Your task to perform on an android device: turn off translation in the chrome app Image 0: 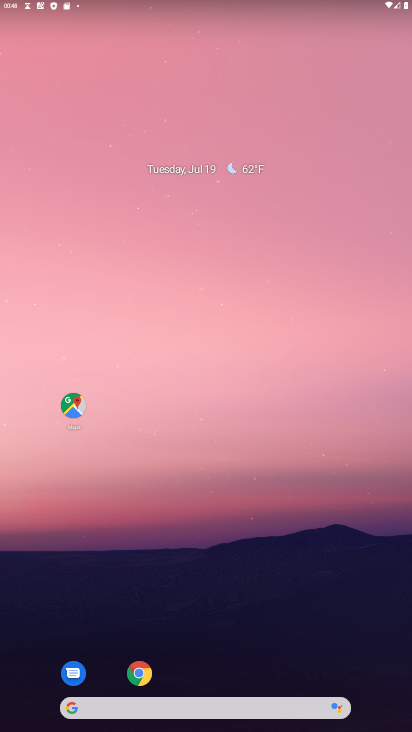
Step 0: click (148, 678)
Your task to perform on an android device: turn off translation in the chrome app Image 1: 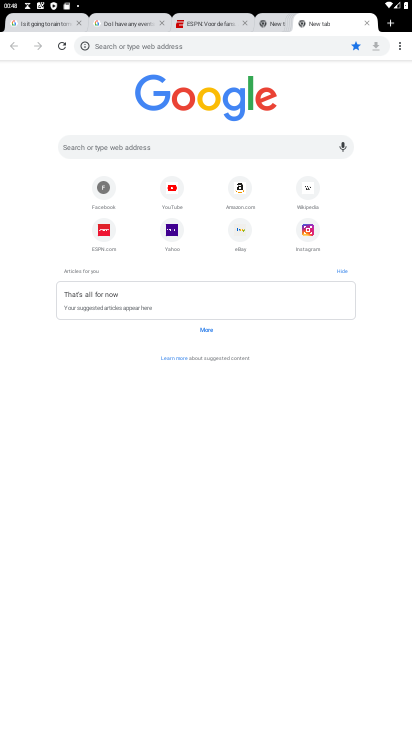
Step 1: drag from (162, 654) to (203, 427)
Your task to perform on an android device: turn off translation in the chrome app Image 2: 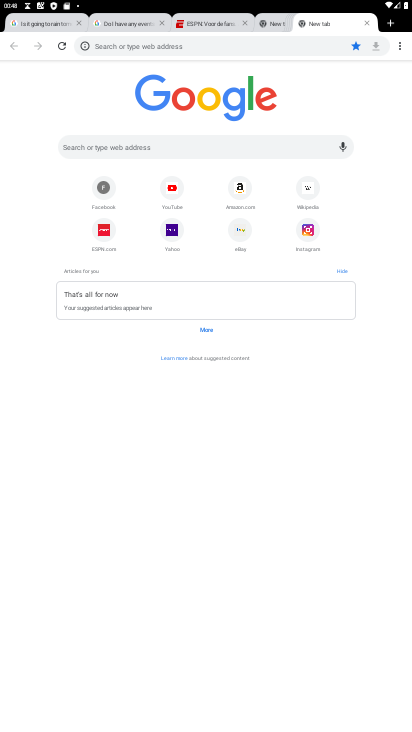
Step 2: click (408, 45)
Your task to perform on an android device: turn off translation in the chrome app Image 3: 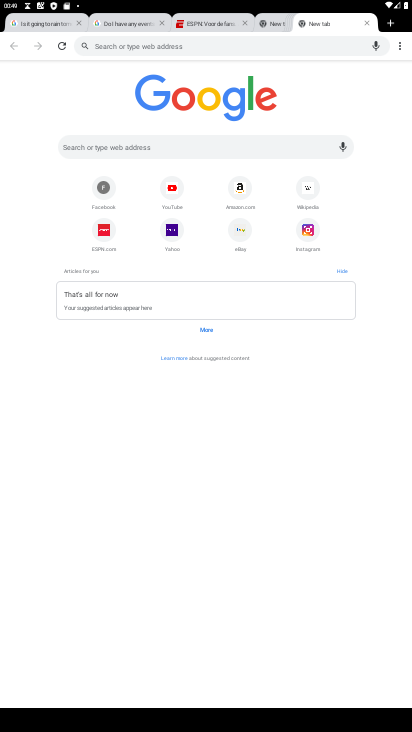
Step 3: click (407, 39)
Your task to perform on an android device: turn off translation in the chrome app Image 4: 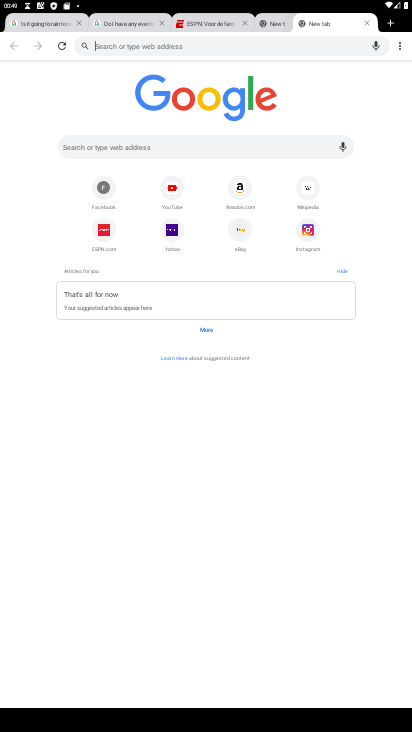
Step 4: click (407, 51)
Your task to perform on an android device: turn off translation in the chrome app Image 5: 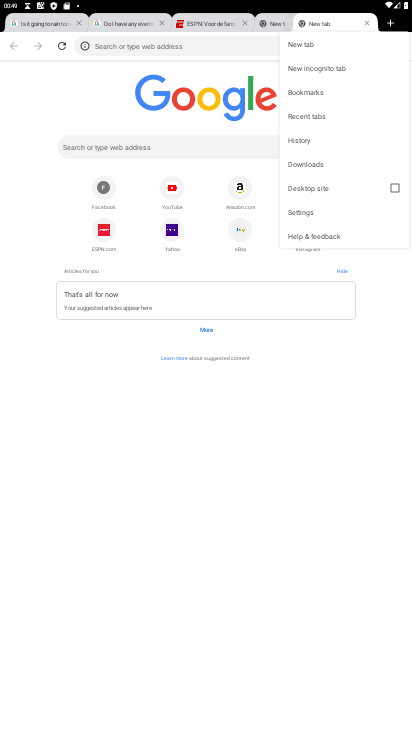
Step 5: click (334, 210)
Your task to perform on an android device: turn off translation in the chrome app Image 6: 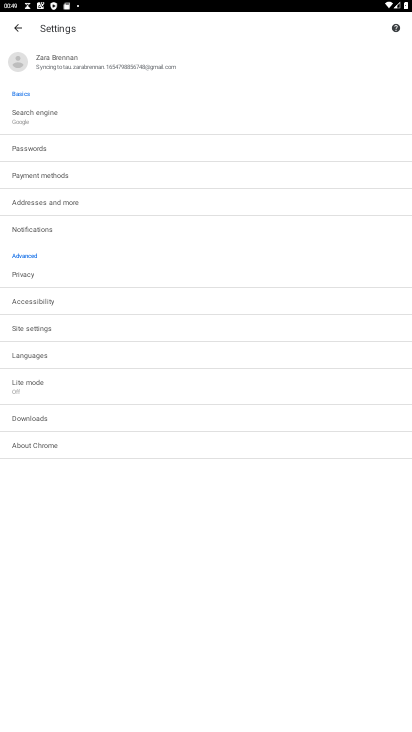
Step 6: click (108, 355)
Your task to perform on an android device: turn off translation in the chrome app Image 7: 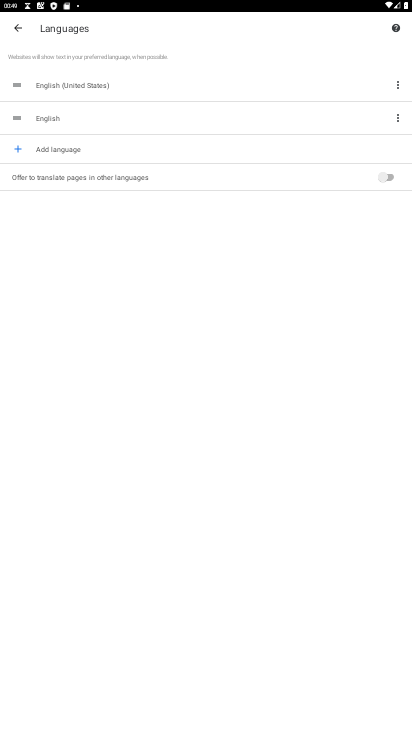
Step 7: task complete